Your task to perform on an android device: see sites visited before in the chrome app Image 0: 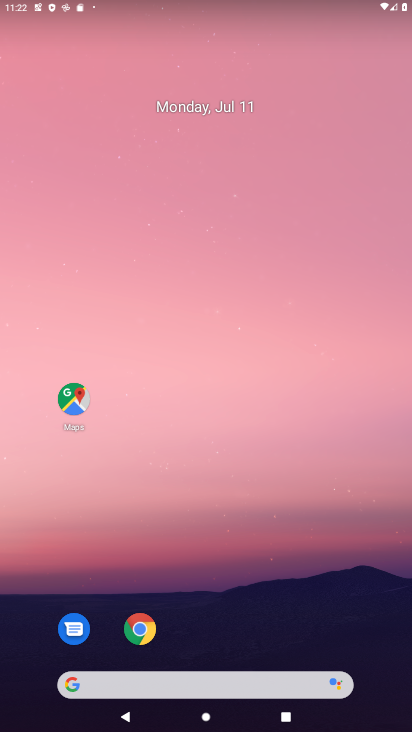
Step 0: click (145, 630)
Your task to perform on an android device: see sites visited before in the chrome app Image 1: 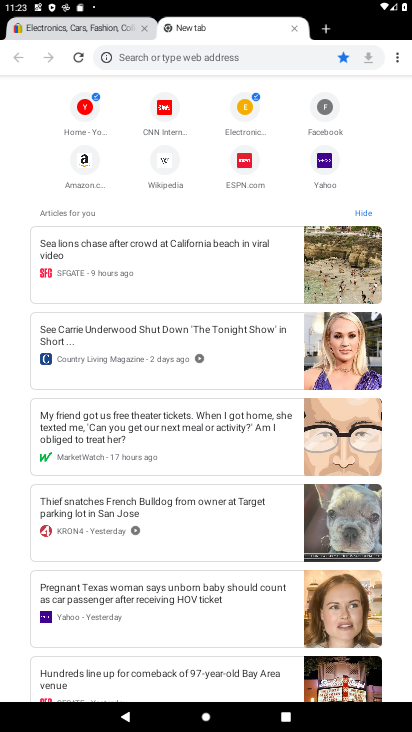
Step 1: click (394, 64)
Your task to perform on an android device: see sites visited before in the chrome app Image 2: 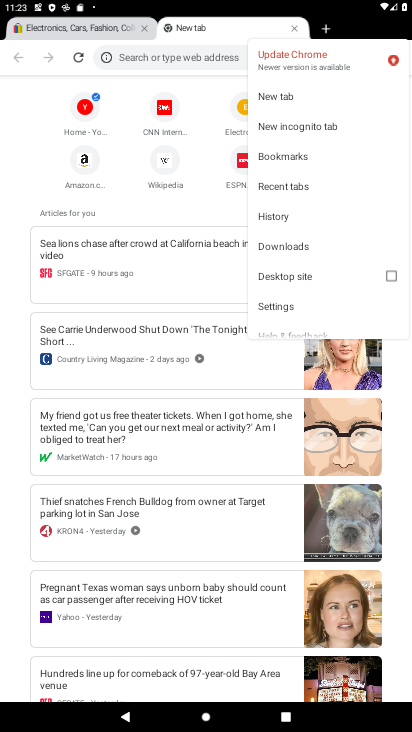
Step 2: click (298, 180)
Your task to perform on an android device: see sites visited before in the chrome app Image 3: 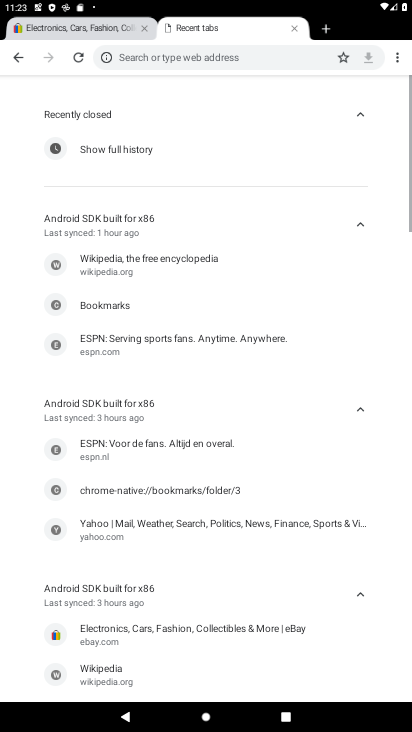
Step 3: task complete